Your task to perform on an android device: turn on priority inbox in the gmail app Image 0: 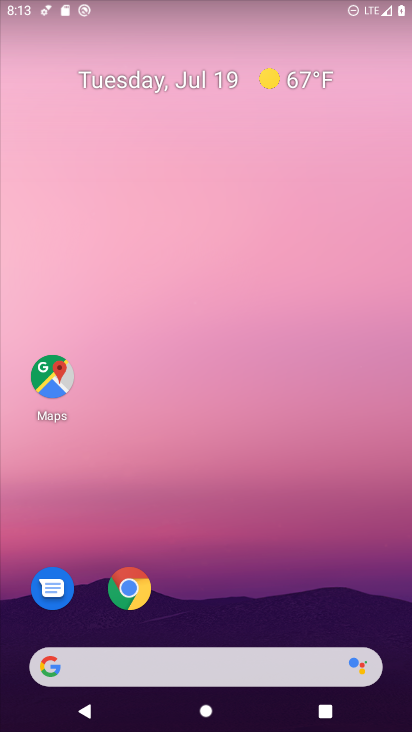
Step 0: drag from (371, 593) to (404, 322)
Your task to perform on an android device: turn on priority inbox in the gmail app Image 1: 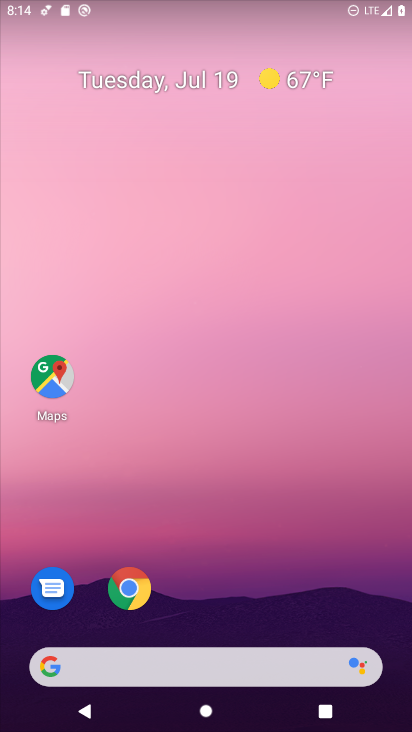
Step 1: drag from (329, 556) to (352, 78)
Your task to perform on an android device: turn on priority inbox in the gmail app Image 2: 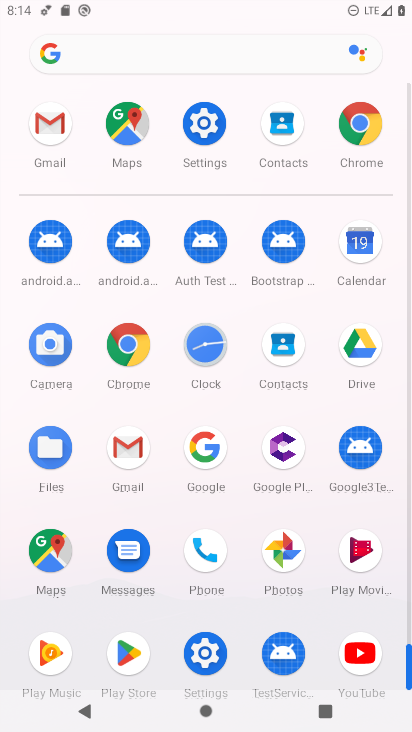
Step 2: click (128, 447)
Your task to perform on an android device: turn on priority inbox in the gmail app Image 3: 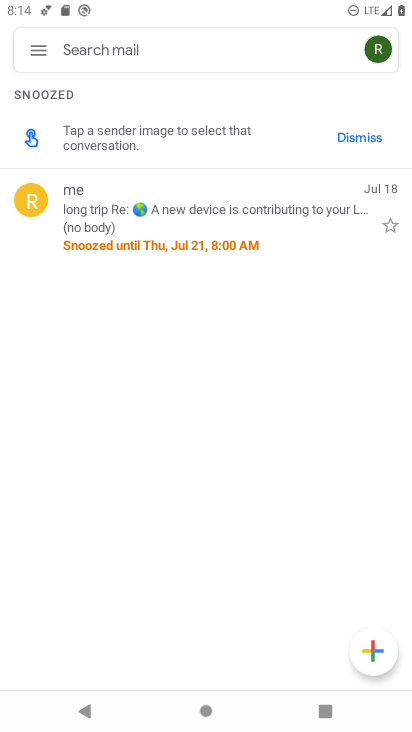
Step 3: click (39, 53)
Your task to perform on an android device: turn on priority inbox in the gmail app Image 4: 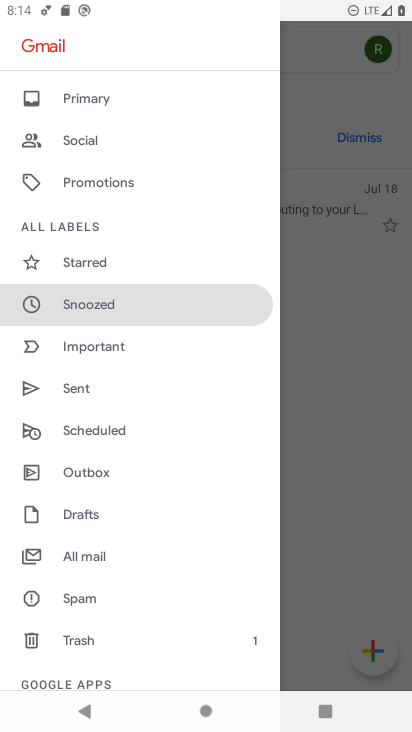
Step 4: drag from (189, 409) to (200, 344)
Your task to perform on an android device: turn on priority inbox in the gmail app Image 5: 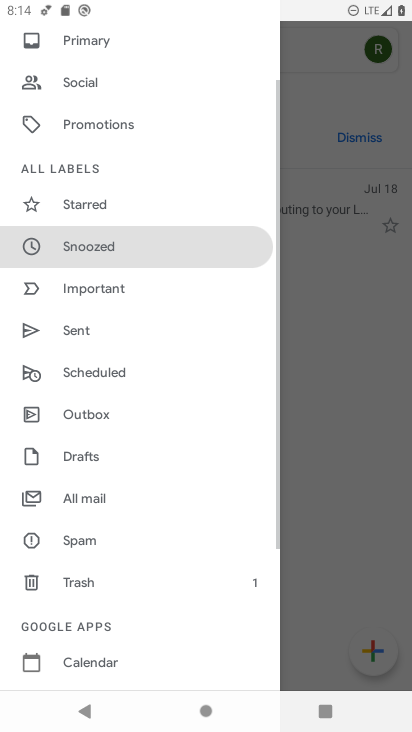
Step 5: drag from (194, 431) to (196, 364)
Your task to perform on an android device: turn on priority inbox in the gmail app Image 6: 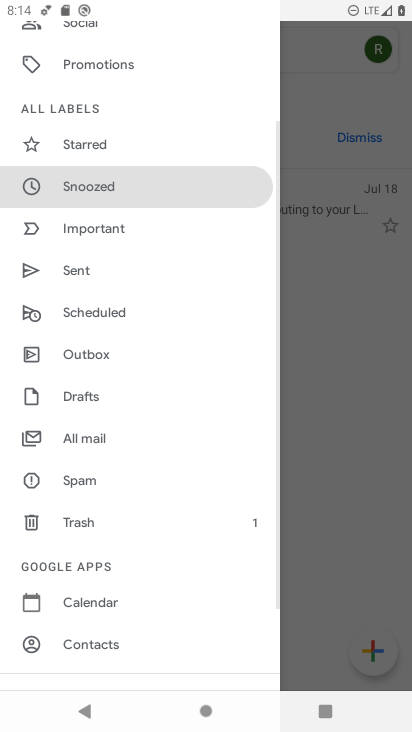
Step 6: drag from (182, 468) to (196, 374)
Your task to perform on an android device: turn on priority inbox in the gmail app Image 7: 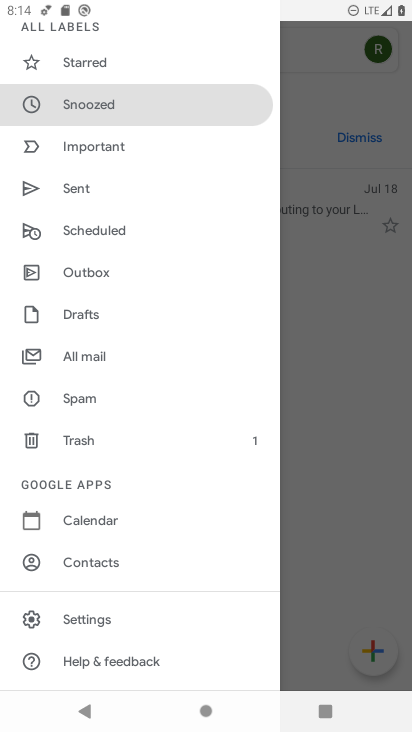
Step 7: drag from (210, 496) to (212, 411)
Your task to perform on an android device: turn on priority inbox in the gmail app Image 8: 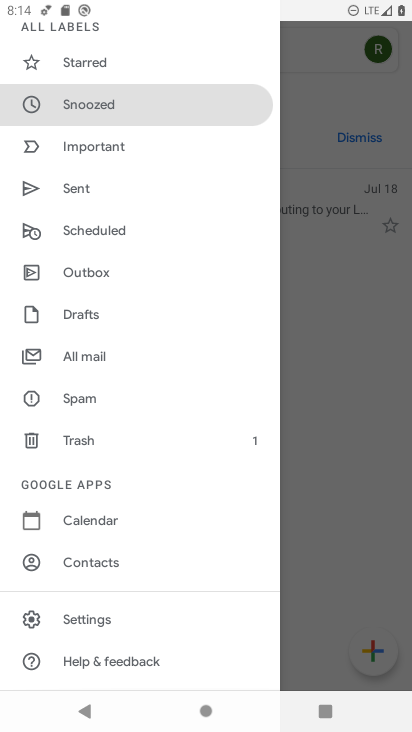
Step 8: click (149, 603)
Your task to perform on an android device: turn on priority inbox in the gmail app Image 9: 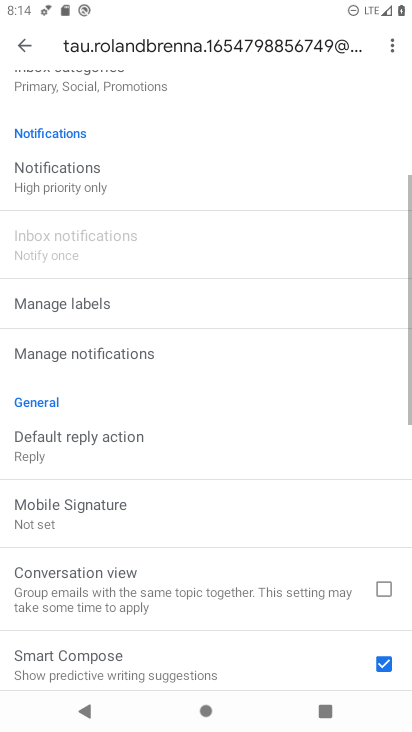
Step 9: drag from (221, 538) to (230, 455)
Your task to perform on an android device: turn on priority inbox in the gmail app Image 10: 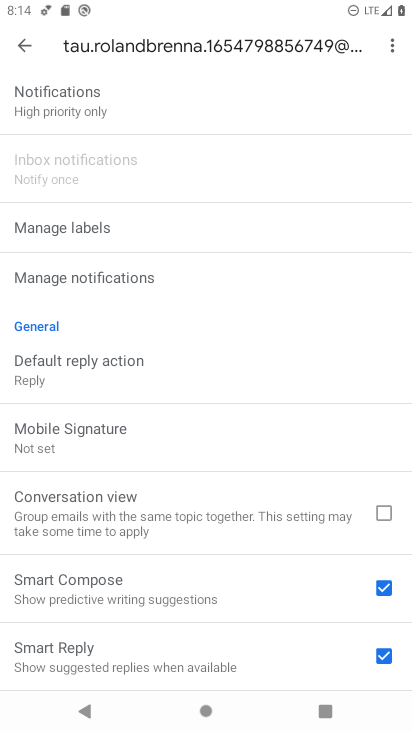
Step 10: drag from (224, 543) to (230, 455)
Your task to perform on an android device: turn on priority inbox in the gmail app Image 11: 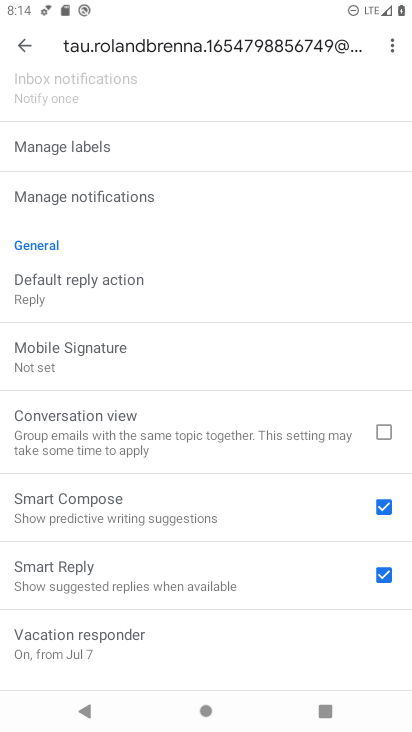
Step 11: drag from (231, 531) to (234, 428)
Your task to perform on an android device: turn on priority inbox in the gmail app Image 12: 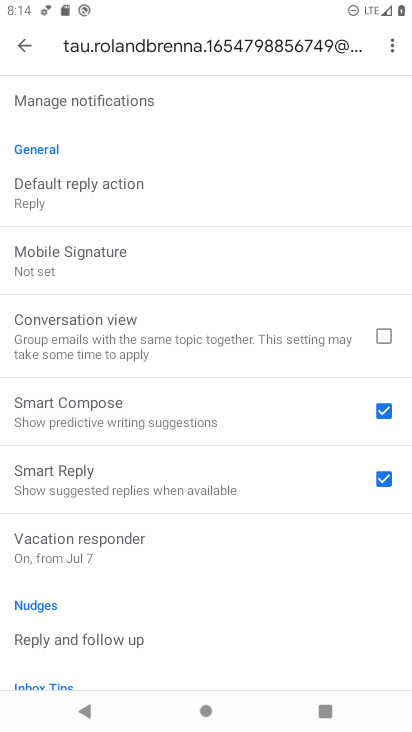
Step 12: drag from (269, 558) to (277, 427)
Your task to perform on an android device: turn on priority inbox in the gmail app Image 13: 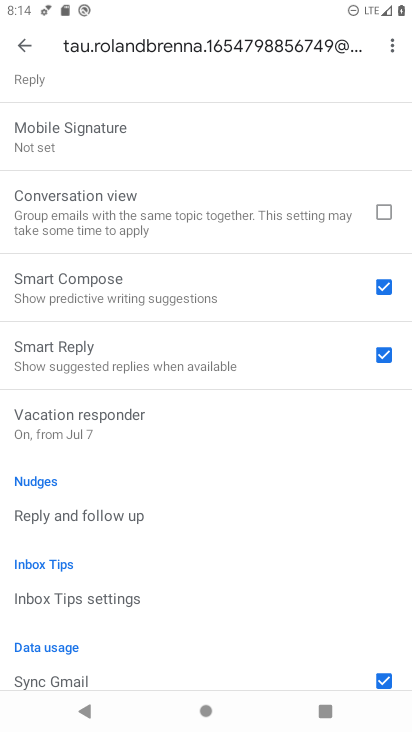
Step 13: drag from (261, 580) to (268, 402)
Your task to perform on an android device: turn on priority inbox in the gmail app Image 14: 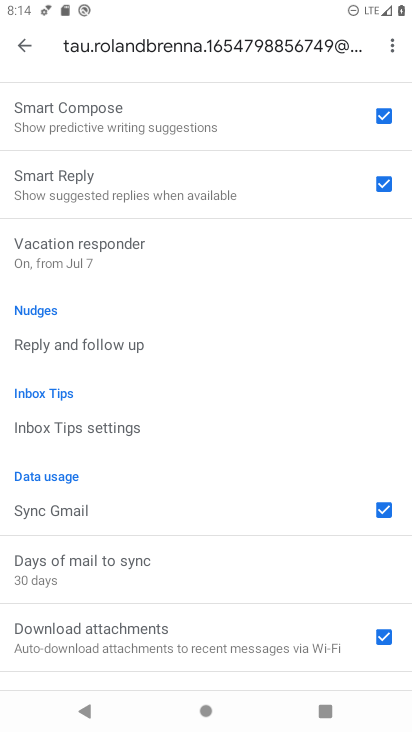
Step 14: drag from (260, 557) to (270, 459)
Your task to perform on an android device: turn on priority inbox in the gmail app Image 15: 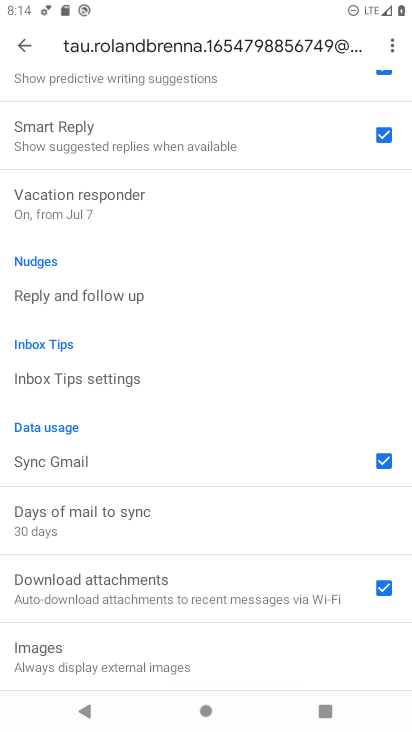
Step 15: drag from (267, 344) to (267, 440)
Your task to perform on an android device: turn on priority inbox in the gmail app Image 16: 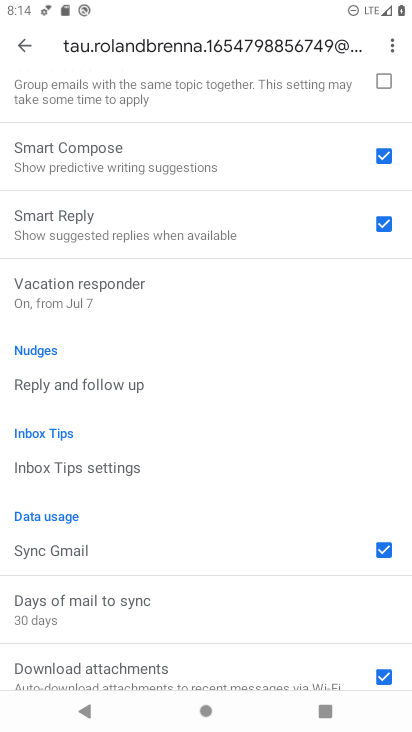
Step 16: drag from (248, 339) to (250, 433)
Your task to perform on an android device: turn on priority inbox in the gmail app Image 17: 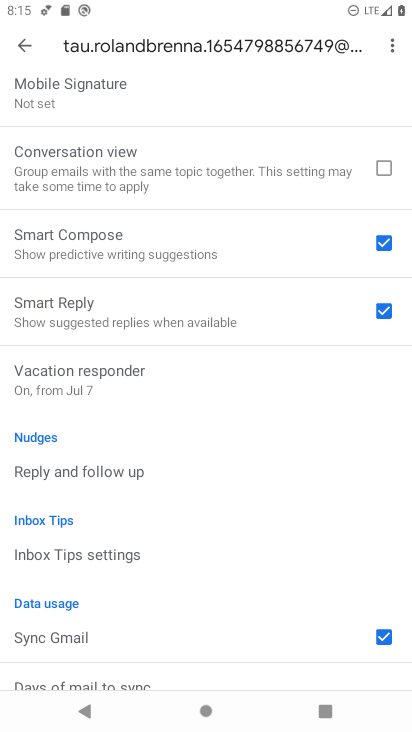
Step 17: drag from (252, 289) to (251, 396)
Your task to perform on an android device: turn on priority inbox in the gmail app Image 18: 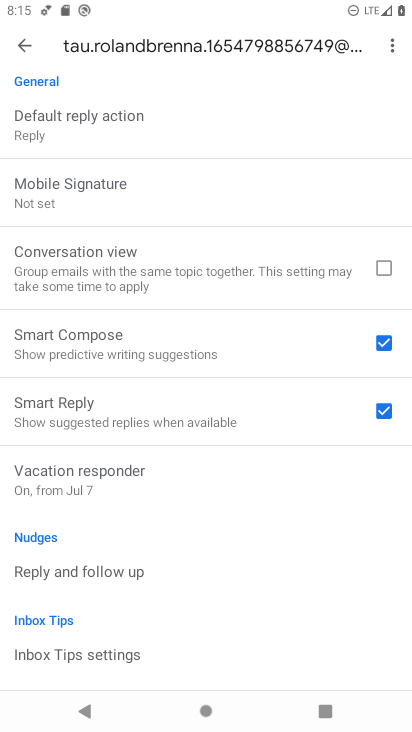
Step 18: drag from (263, 242) to (264, 361)
Your task to perform on an android device: turn on priority inbox in the gmail app Image 19: 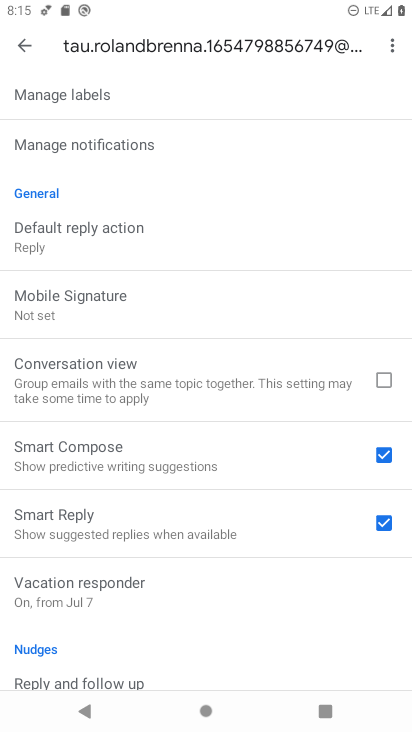
Step 19: drag from (263, 199) to (273, 370)
Your task to perform on an android device: turn on priority inbox in the gmail app Image 20: 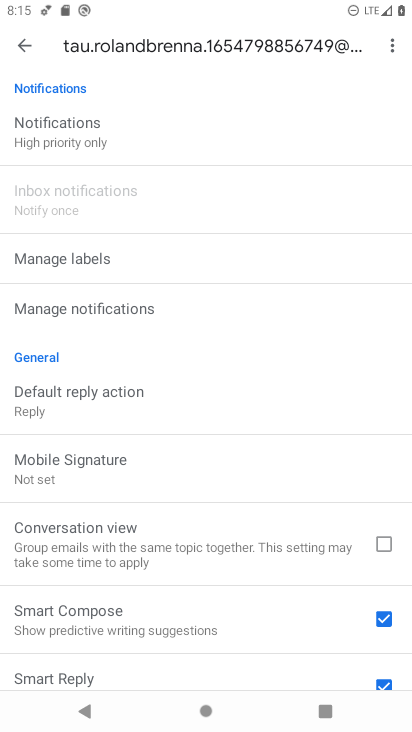
Step 20: drag from (274, 248) to (276, 348)
Your task to perform on an android device: turn on priority inbox in the gmail app Image 21: 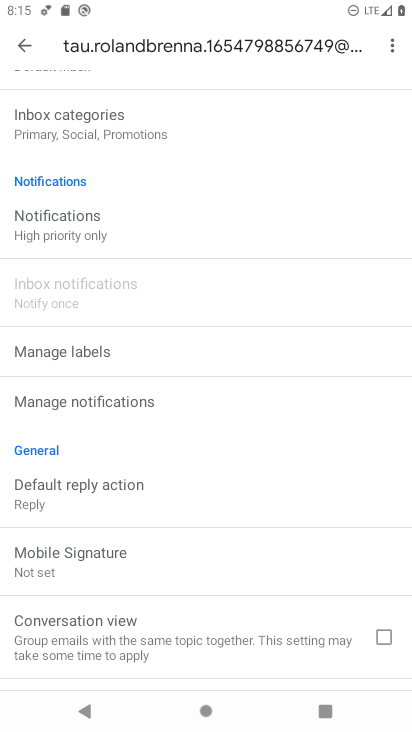
Step 21: drag from (282, 213) to (279, 367)
Your task to perform on an android device: turn on priority inbox in the gmail app Image 22: 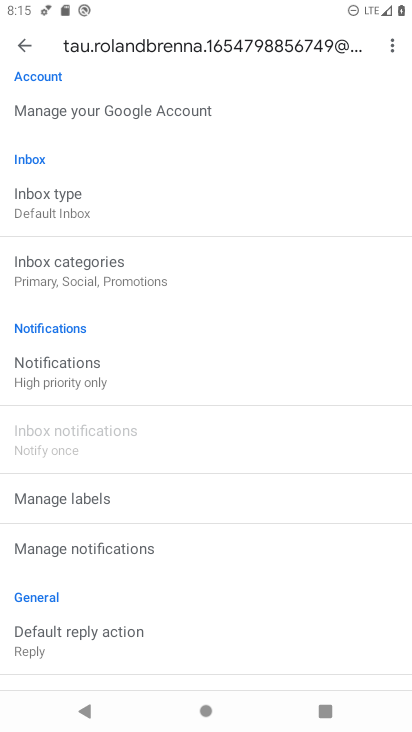
Step 22: click (106, 213)
Your task to perform on an android device: turn on priority inbox in the gmail app Image 23: 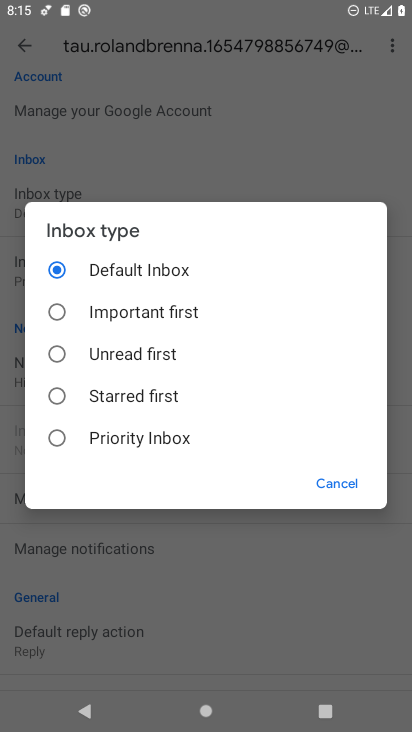
Step 23: click (145, 444)
Your task to perform on an android device: turn on priority inbox in the gmail app Image 24: 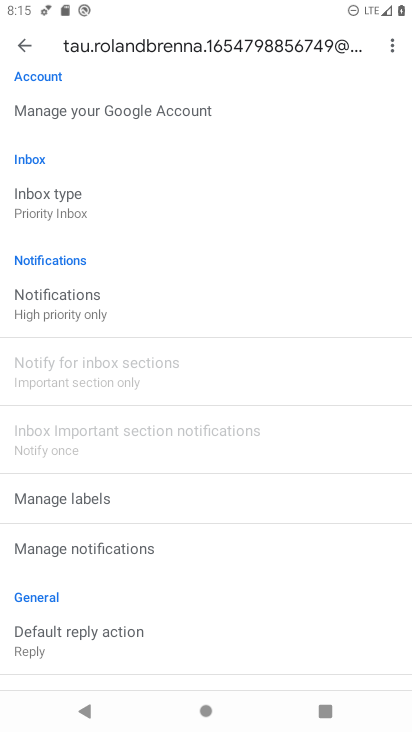
Step 24: task complete